Your task to perform on an android device: change notification settings in the gmail app Image 0: 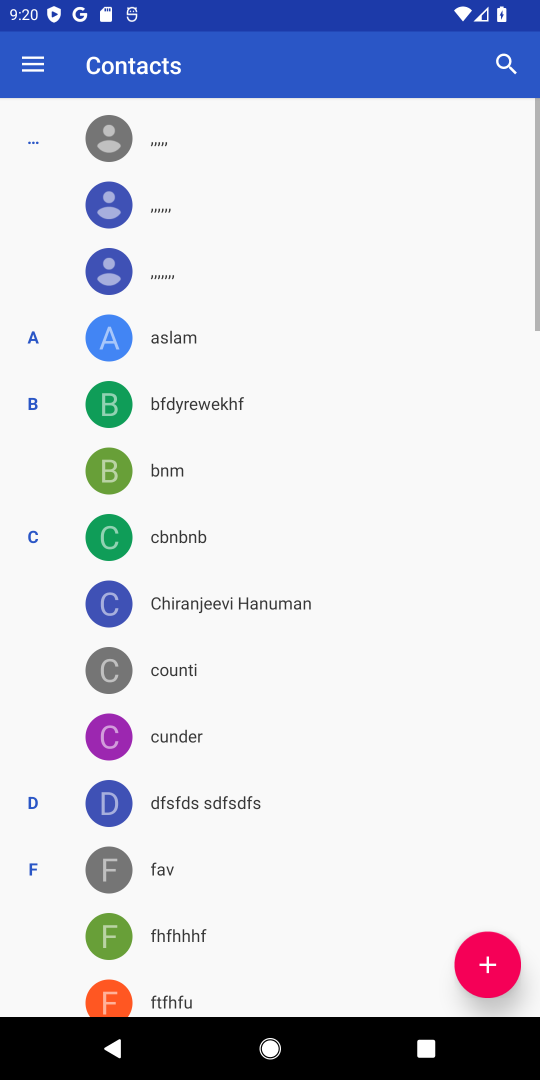
Step 0: press home button
Your task to perform on an android device: change notification settings in the gmail app Image 1: 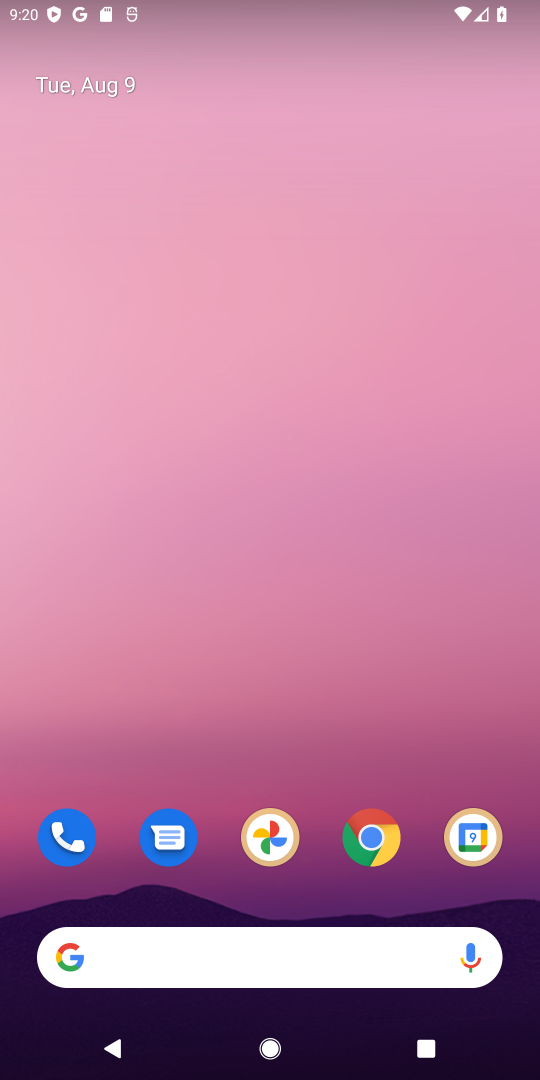
Step 1: click (367, 843)
Your task to perform on an android device: change notification settings in the gmail app Image 2: 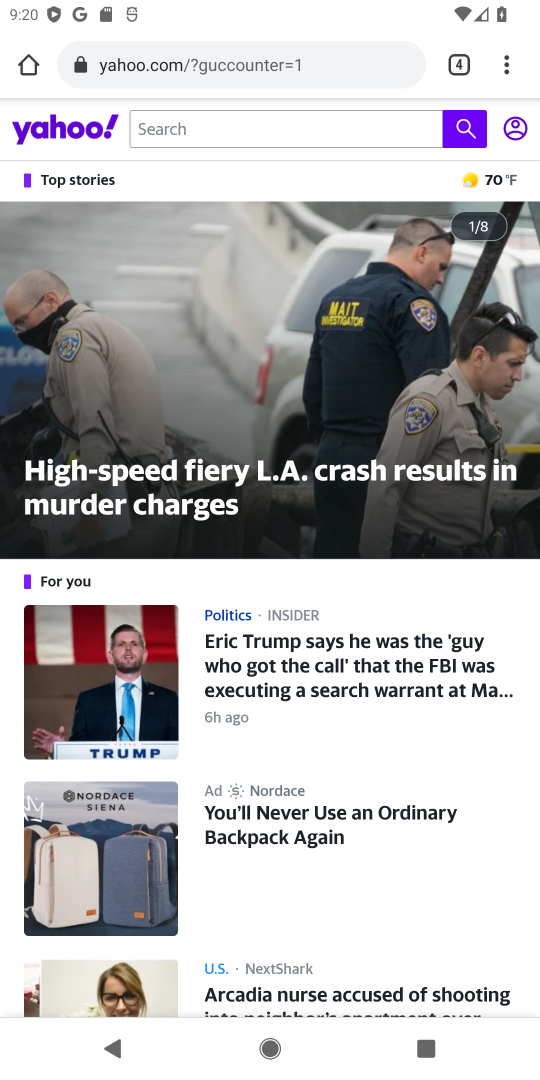
Step 2: click (509, 71)
Your task to perform on an android device: change notification settings in the gmail app Image 3: 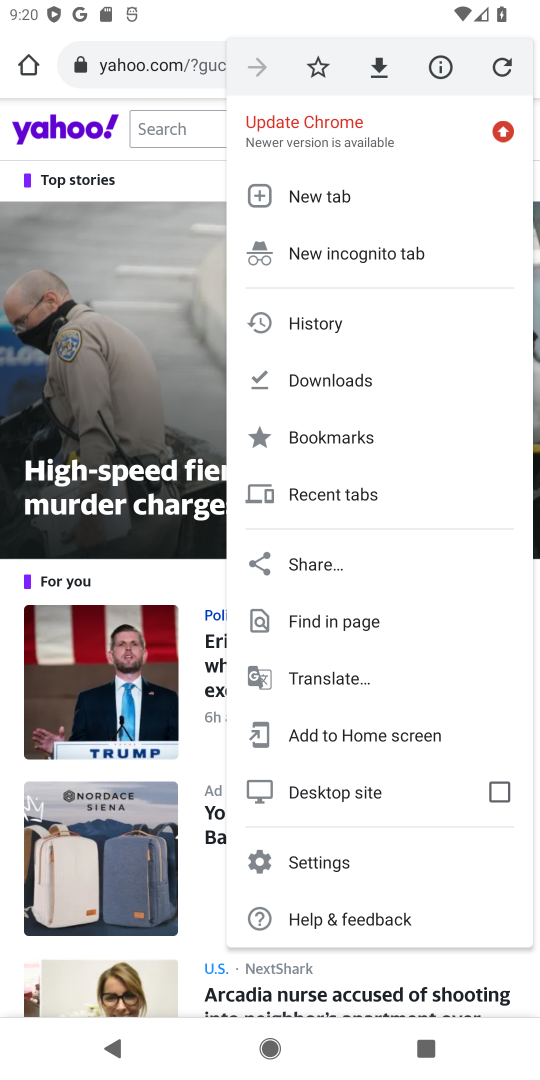
Step 3: click (296, 860)
Your task to perform on an android device: change notification settings in the gmail app Image 4: 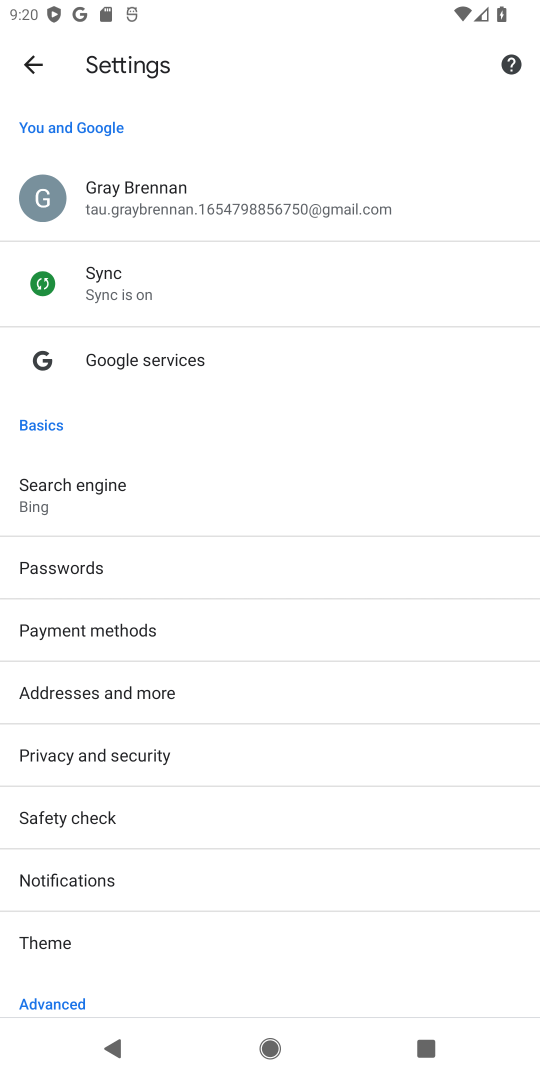
Step 4: drag from (76, 930) to (37, 547)
Your task to perform on an android device: change notification settings in the gmail app Image 5: 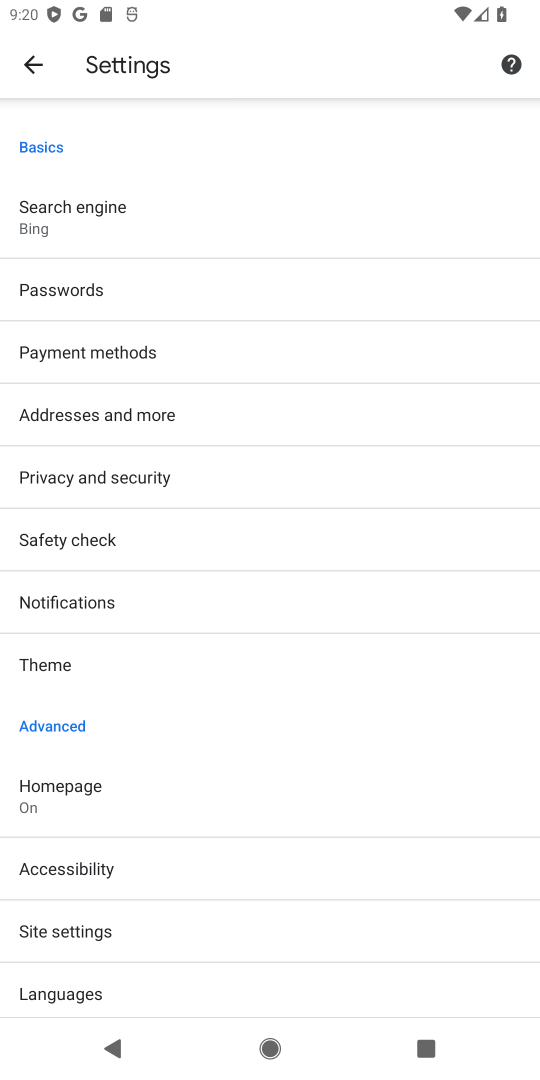
Step 5: click (92, 930)
Your task to perform on an android device: change notification settings in the gmail app Image 6: 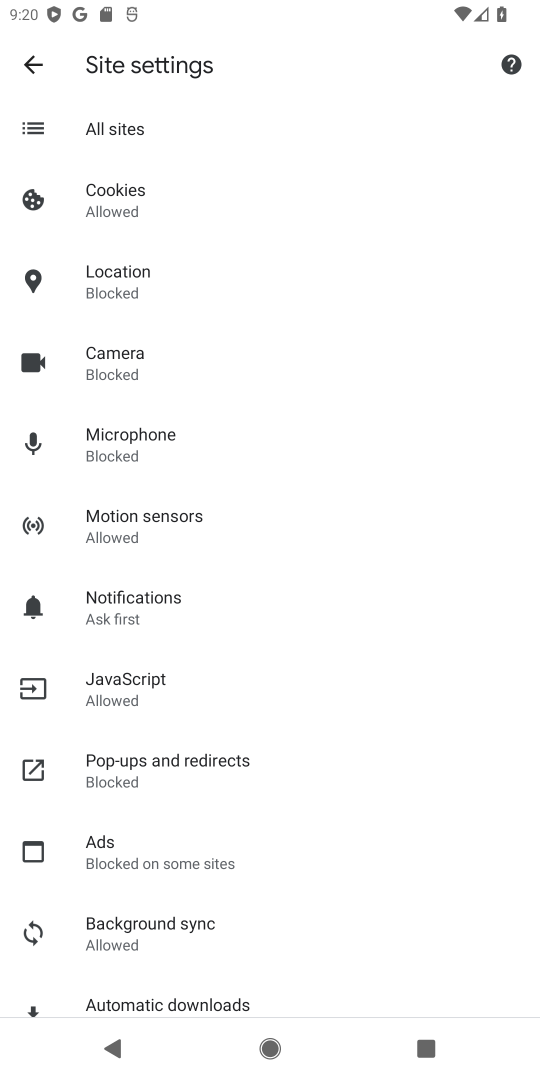
Step 6: click (118, 594)
Your task to perform on an android device: change notification settings in the gmail app Image 7: 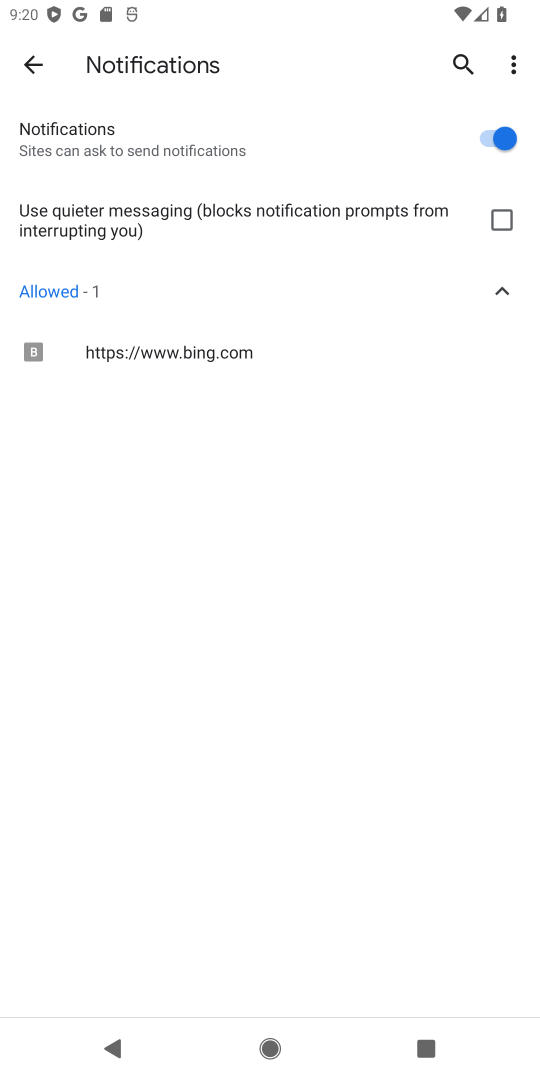
Step 7: click (494, 135)
Your task to perform on an android device: change notification settings in the gmail app Image 8: 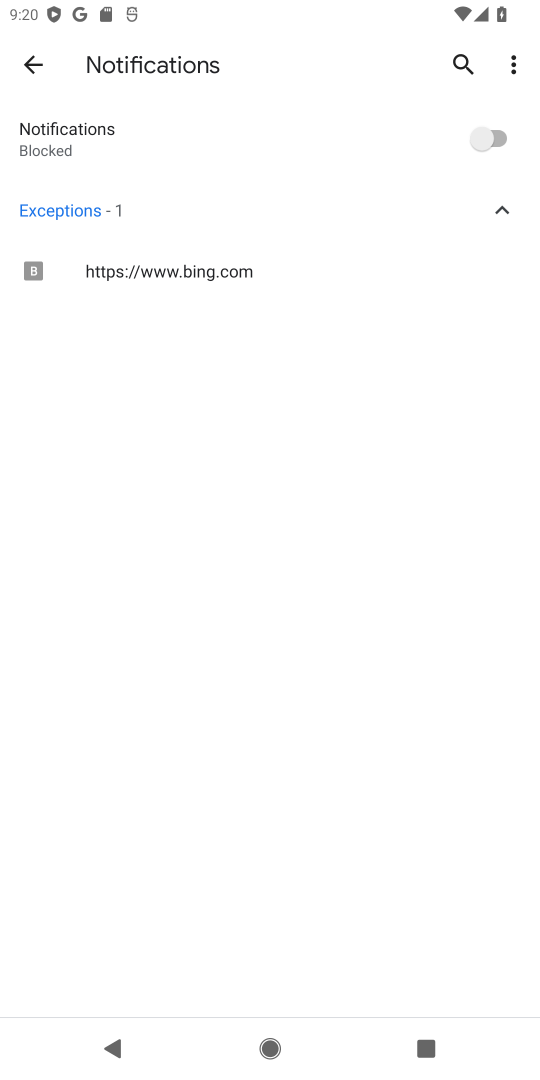
Step 8: task complete